Your task to perform on an android device: Open display settings Image 0: 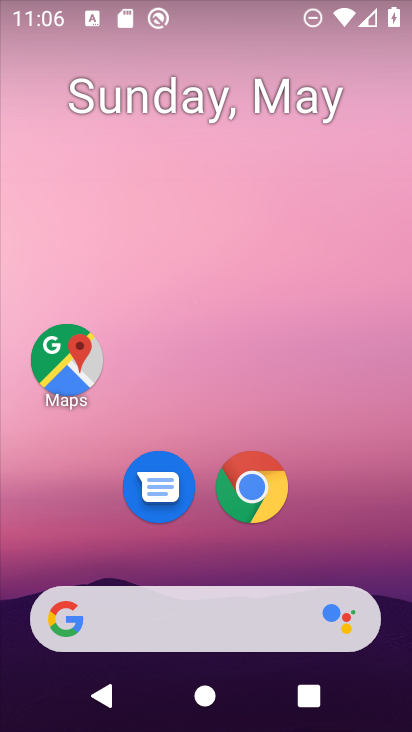
Step 0: drag from (238, 542) to (376, 122)
Your task to perform on an android device: Open display settings Image 1: 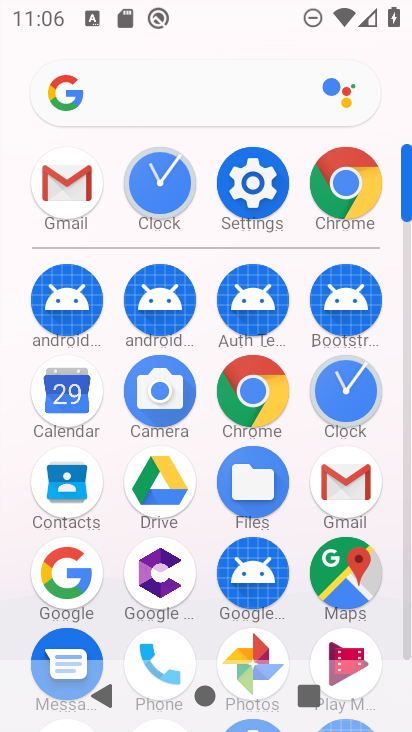
Step 1: click (258, 182)
Your task to perform on an android device: Open display settings Image 2: 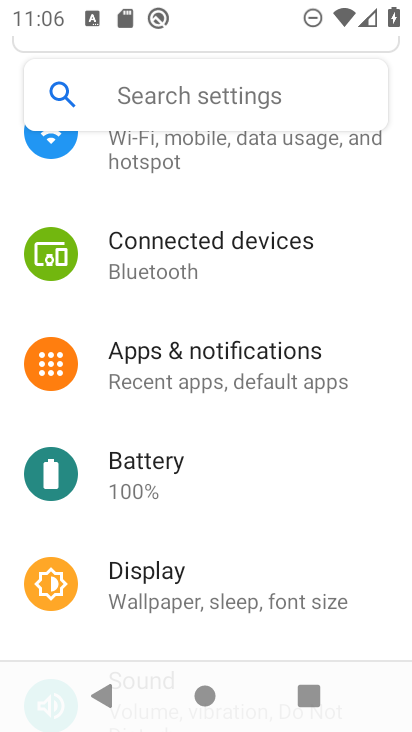
Step 2: click (166, 577)
Your task to perform on an android device: Open display settings Image 3: 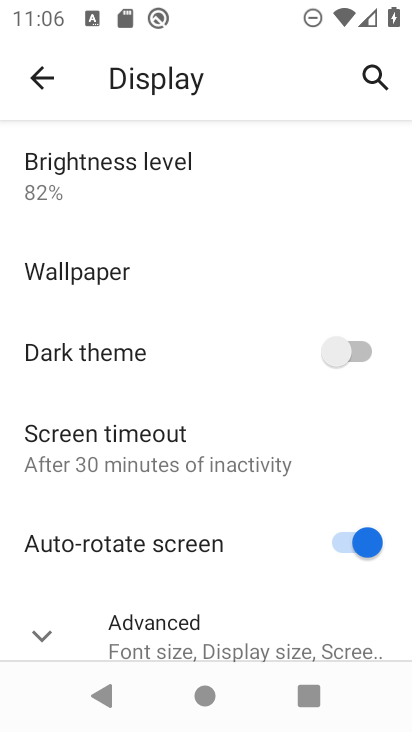
Step 3: task complete